Your task to perform on an android device: turn smart compose on in the gmail app Image 0: 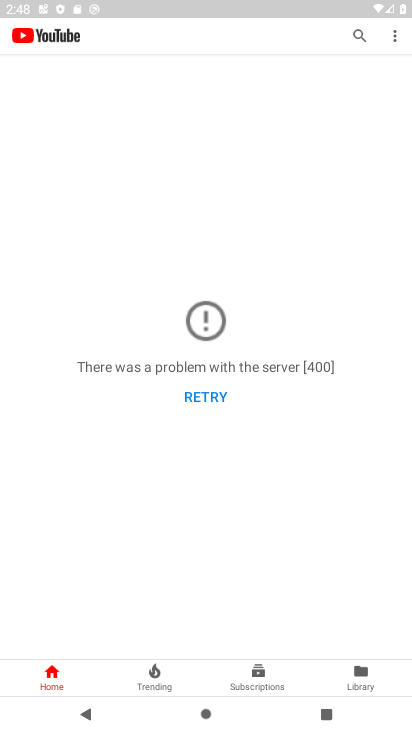
Step 0: press home button
Your task to perform on an android device: turn smart compose on in the gmail app Image 1: 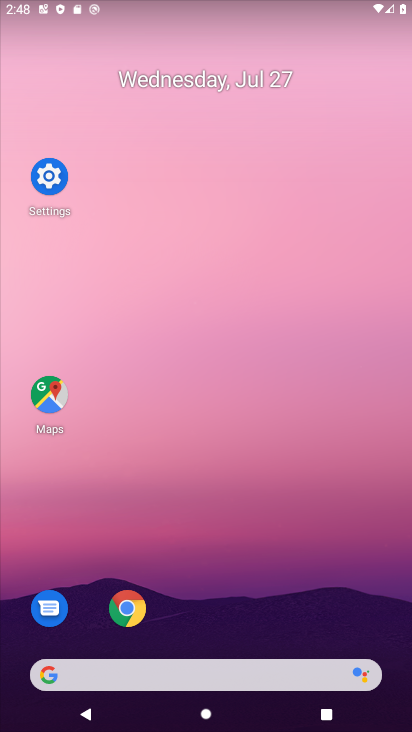
Step 1: drag from (251, 581) to (208, 133)
Your task to perform on an android device: turn smart compose on in the gmail app Image 2: 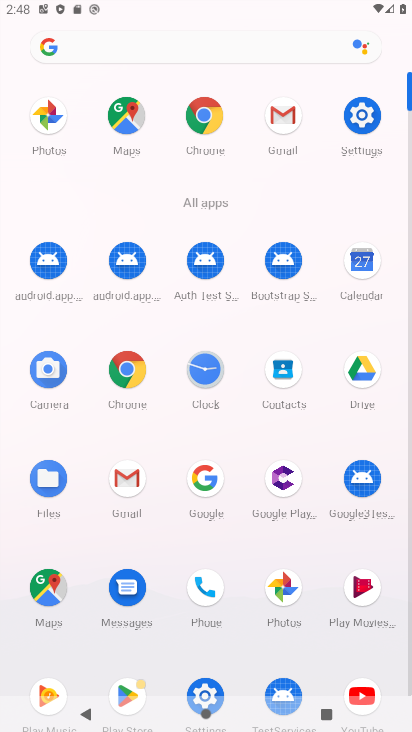
Step 2: click (285, 112)
Your task to perform on an android device: turn smart compose on in the gmail app Image 3: 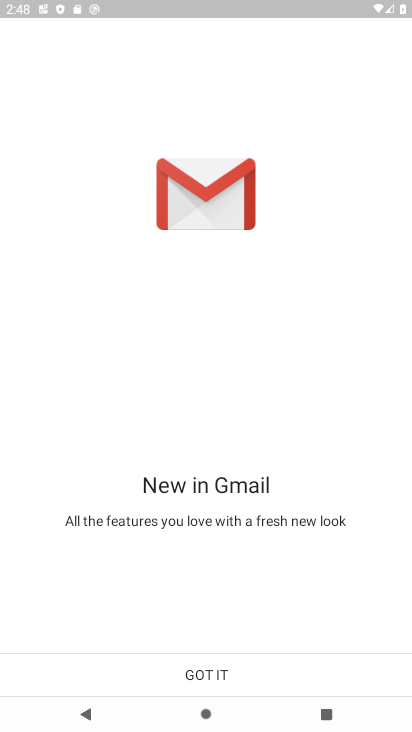
Step 3: click (269, 671)
Your task to perform on an android device: turn smart compose on in the gmail app Image 4: 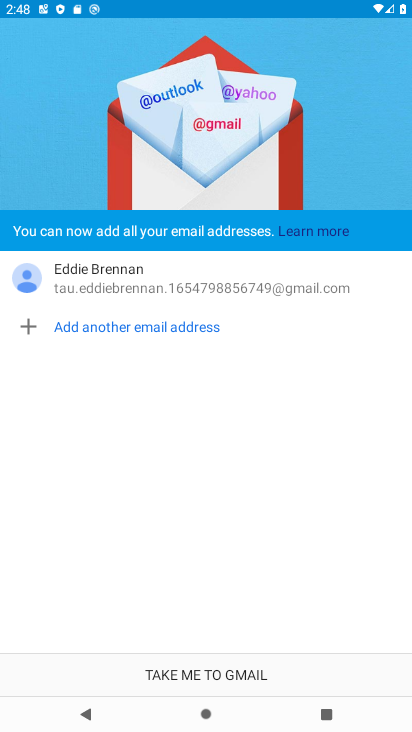
Step 4: click (322, 676)
Your task to perform on an android device: turn smart compose on in the gmail app Image 5: 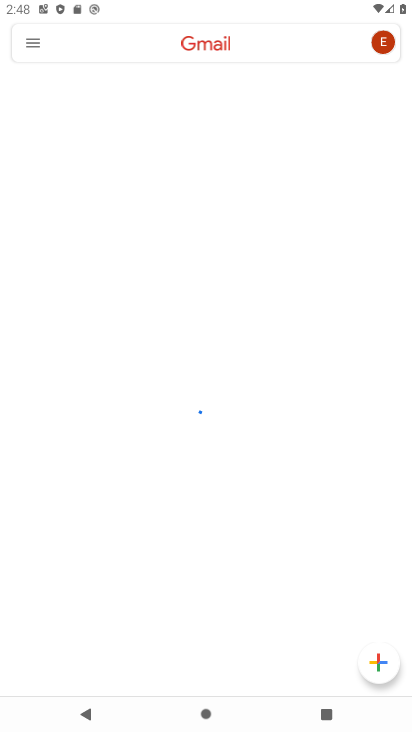
Step 5: click (28, 48)
Your task to perform on an android device: turn smart compose on in the gmail app Image 6: 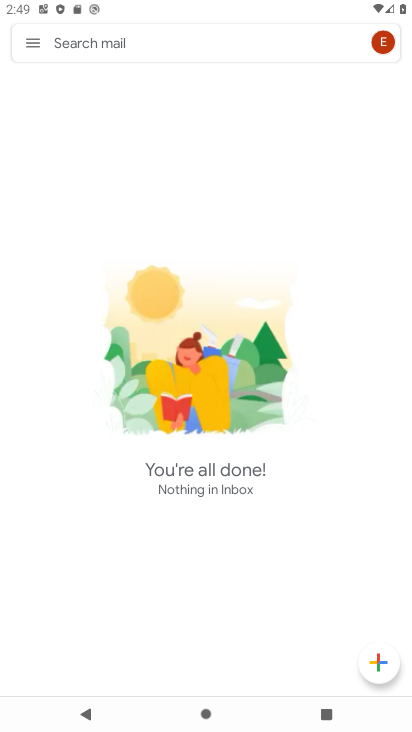
Step 6: click (37, 40)
Your task to perform on an android device: turn smart compose on in the gmail app Image 7: 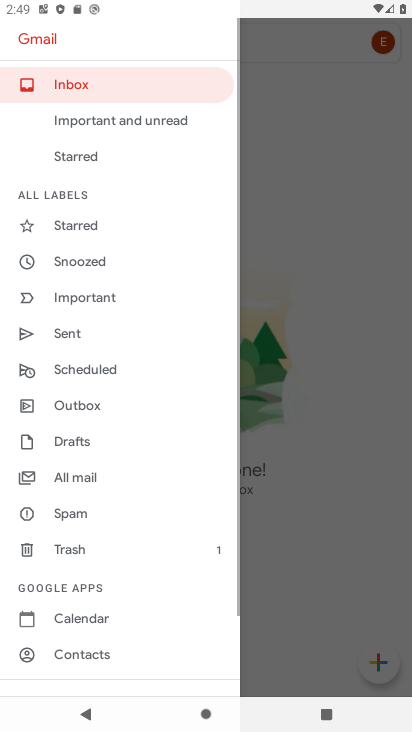
Step 7: drag from (135, 568) to (131, 205)
Your task to perform on an android device: turn smart compose on in the gmail app Image 8: 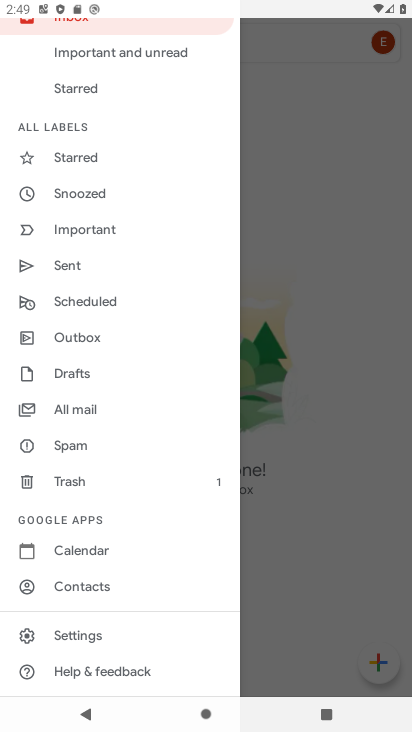
Step 8: click (122, 621)
Your task to perform on an android device: turn smart compose on in the gmail app Image 9: 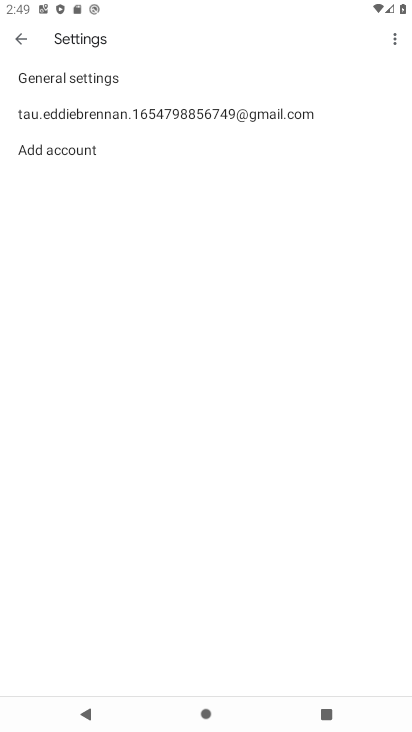
Step 9: click (185, 104)
Your task to perform on an android device: turn smart compose on in the gmail app Image 10: 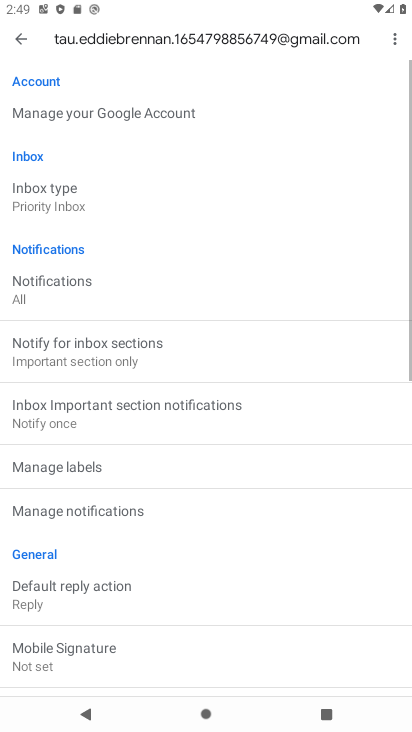
Step 10: task complete